Your task to perform on an android device: add a label to a message in the gmail app Image 0: 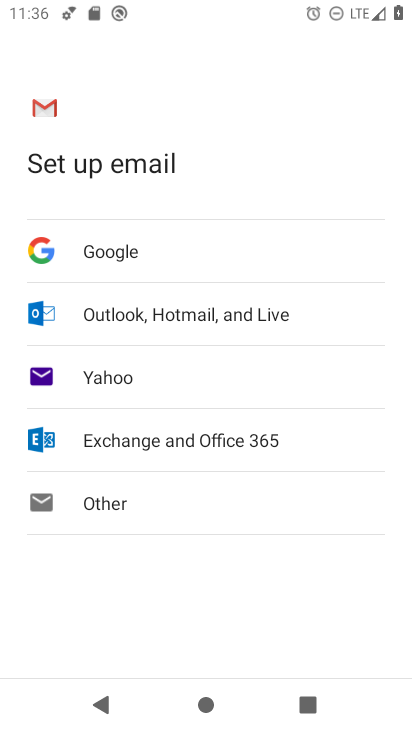
Step 0: press home button
Your task to perform on an android device: add a label to a message in the gmail app Image 1: 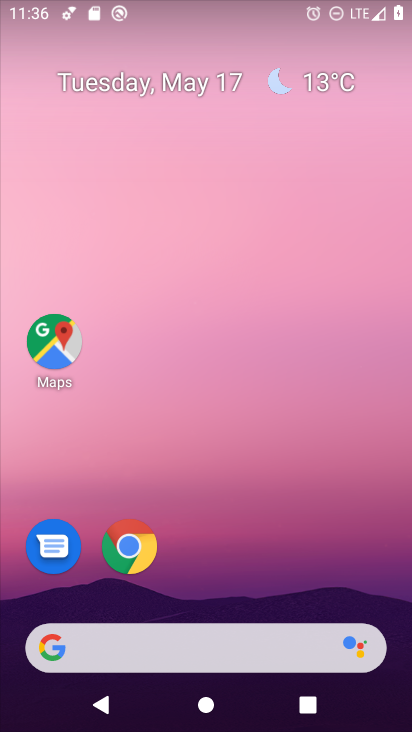
Step 1: drag from (265, 547) to (290, 28)
Your task to perform on an android device: add a label to a message in the gmail app Image 2: 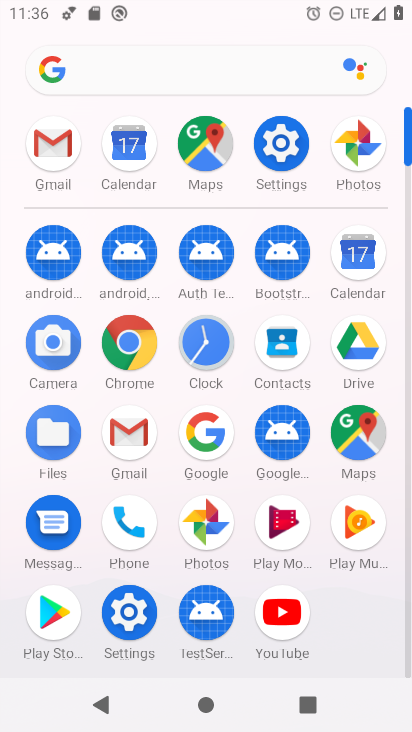
Step 2: click (49, 159)
Your task to perform on an android device: add a label to a message in the gmail app Image 3: 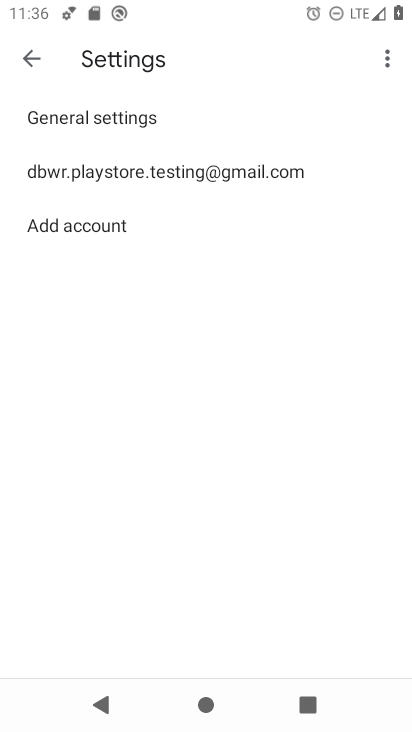
Step 3: click (31, 63)
Your task to perform on an android device: add a label to a message in the gmail app Image 4: 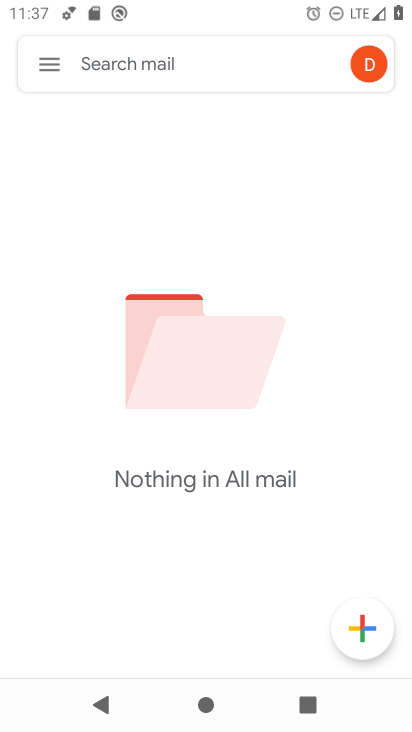
Step 4: task complete